Your task to perform on an android device: turn off javascript in the chrome app Image 0: 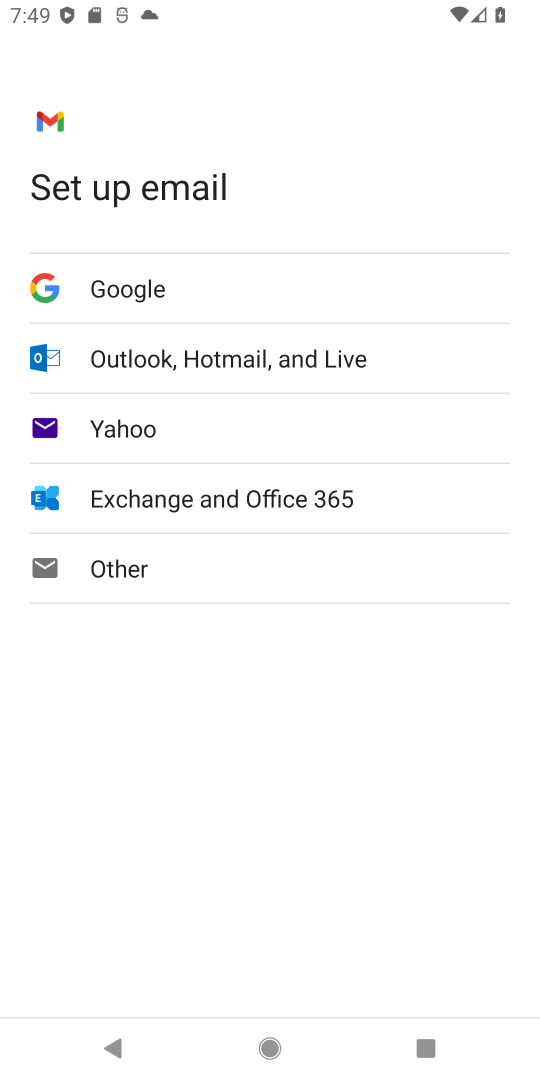
Step 0: press home button
Your task to perform on an android device: turn off javascript in the chrome app Image 1: 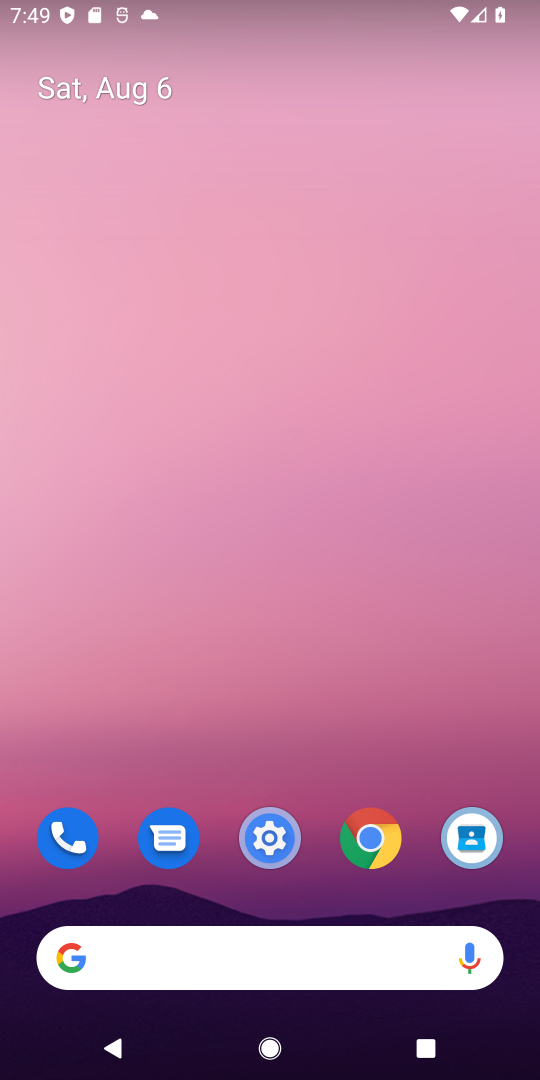
Step 1: click (377, 848)
Your task to perform on an android device: turn off javascript in the chrome app Image 2: 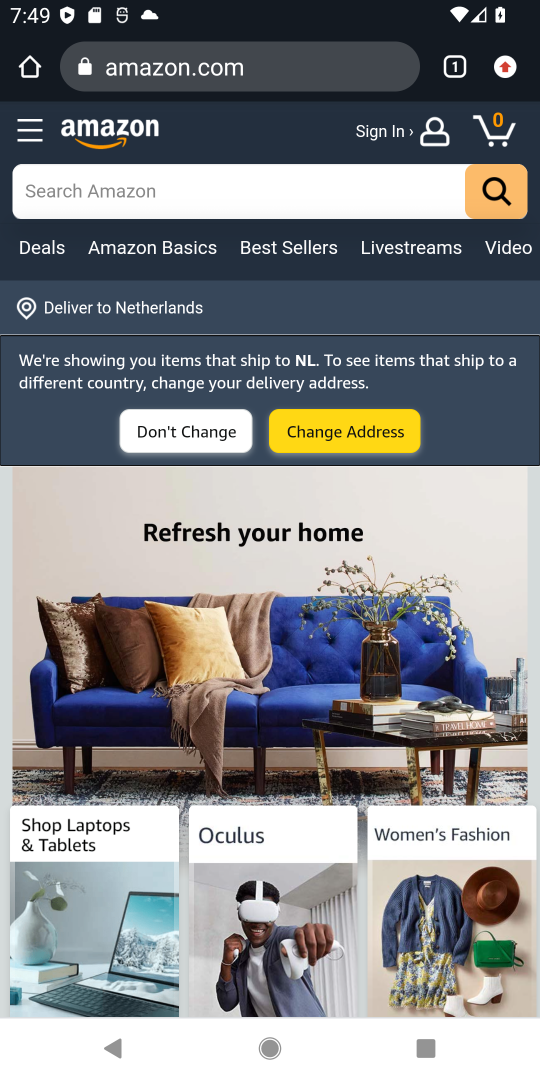
Step 2: click (506, 68)
Your task to perform on an android device: turn off javascript in the chrome app Image 3: 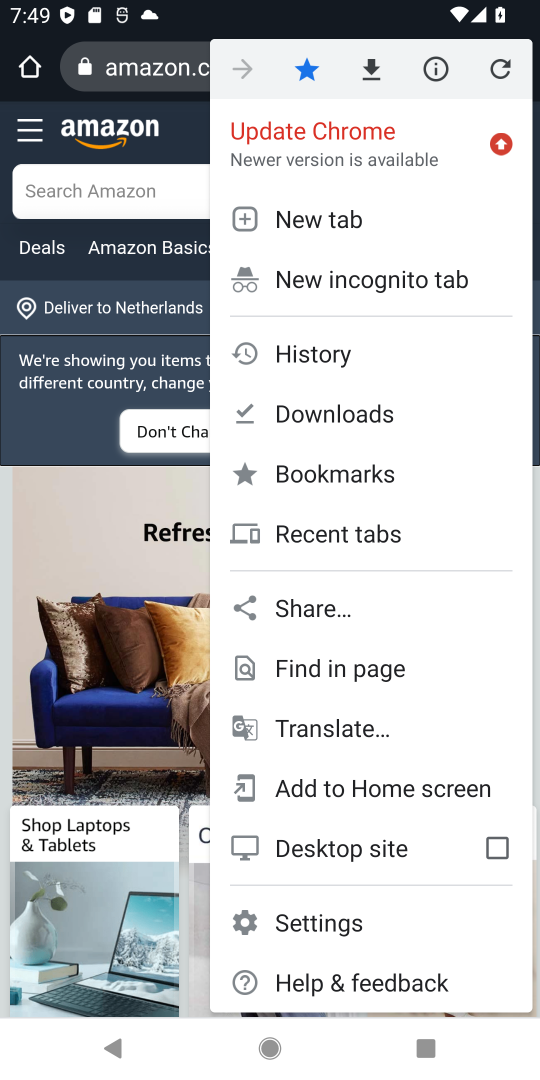
Step 3: click (303, 926)
Your task to perform on an android device: turn off javascript in the chrome app Image 4: 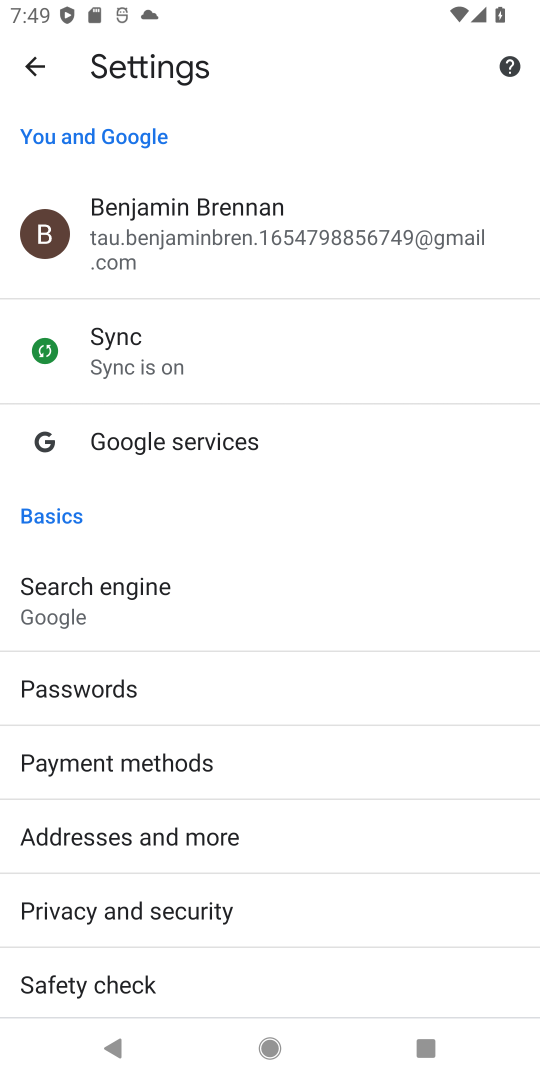
Step 4: drag from (170, 868) to (175, 261)
Your task to perform on an android device: turn off javascript in the chrome app Image 5: 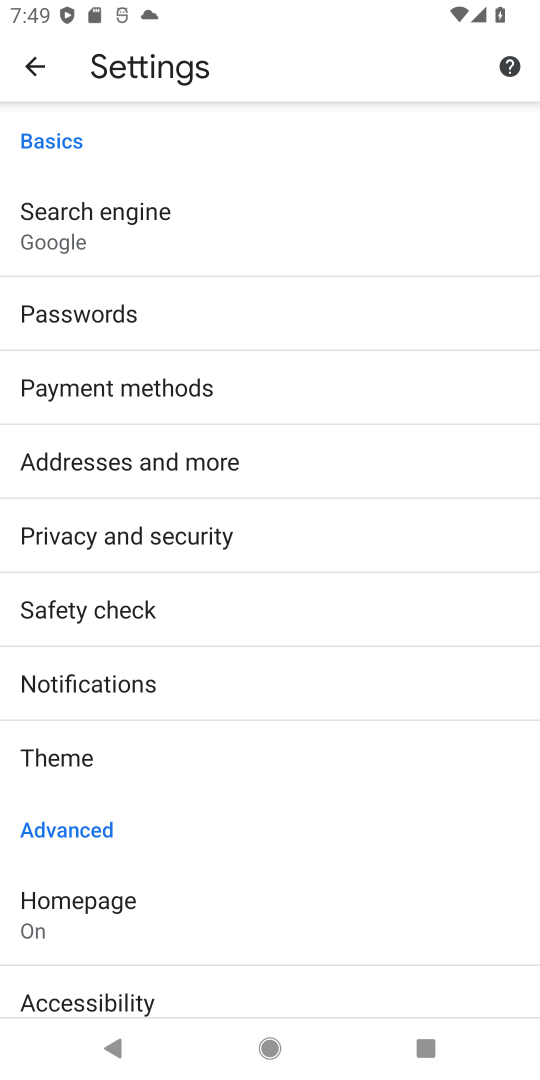
Step 5: drag from (172, 685) to (188, 523)
Your task to perform on an android device: turn off javascript in the chrome app Image 6: 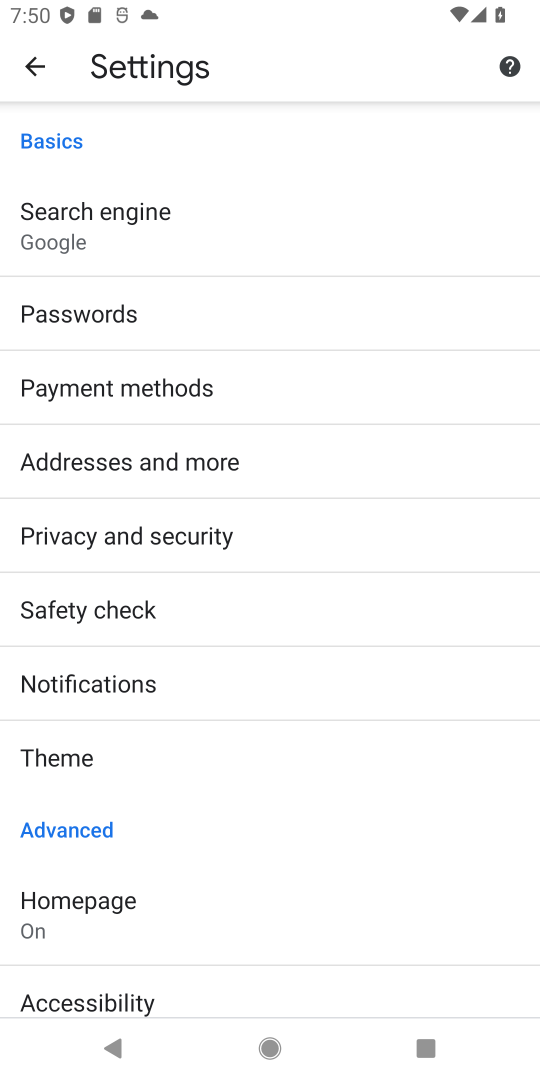
Step 6: drag from (141, 855) to (190, 219)
Your task to perform on an android device: turn off javascript in the chrome app Image 7: 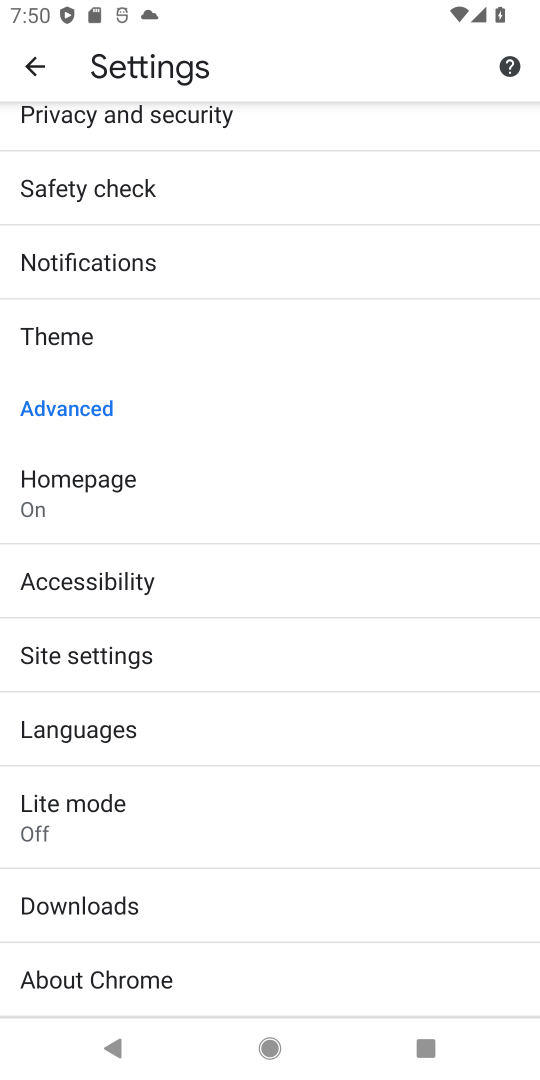
Step 7: click (114, 671)
Your task to perform on an android device: turn off javascript in the chrome app Image 8: 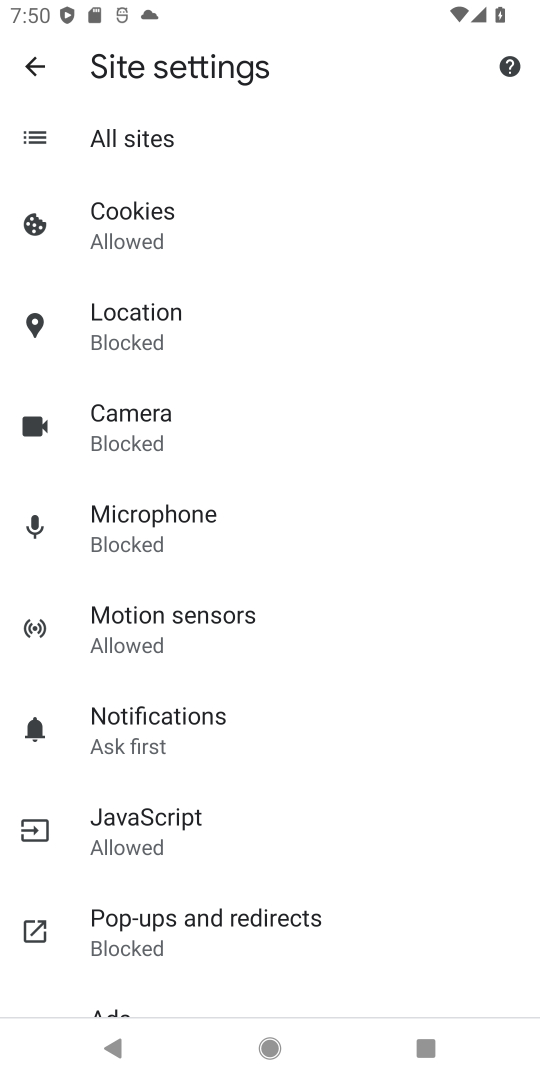
Step 8: click (141, 839)
Your task to perform on an android device: turn off javascript in the chrome app Image 9: 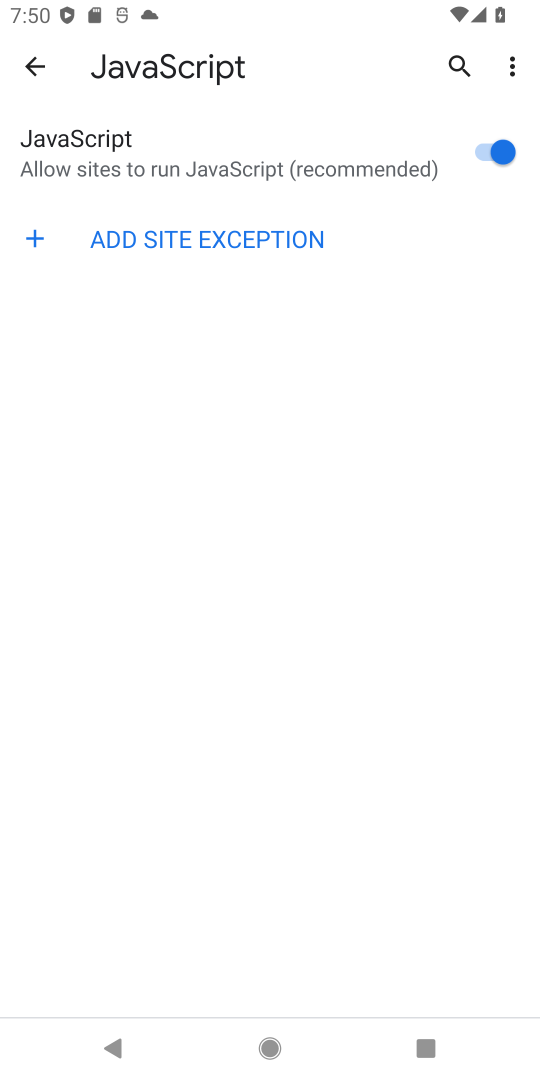
Step 9: click (489, 153)
Your task to perform on an android device: turn off javascript in the chrome app Image 10: 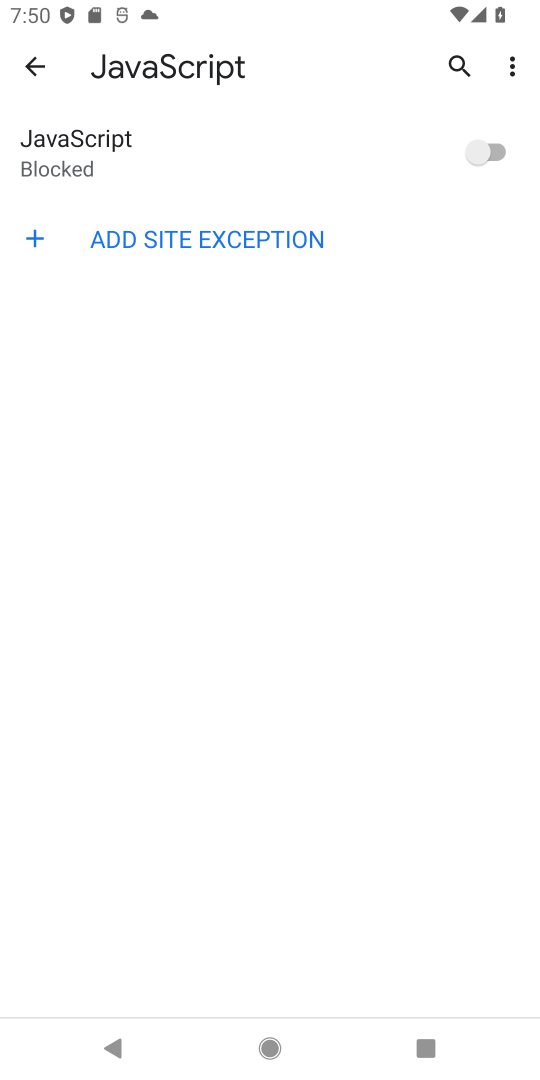
Step 10: task complete